Your task to perform on an android device: turn on javascript in the chrome app Image 0: 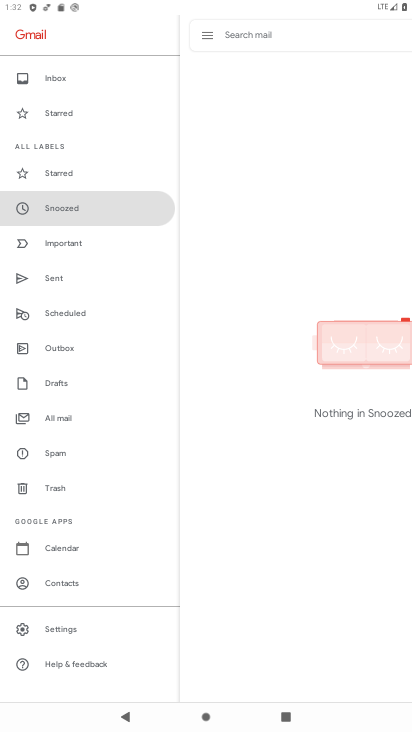
Step 0: press home button
Your task to perform on an android device: turn on javascript in the chrome app Image 1: 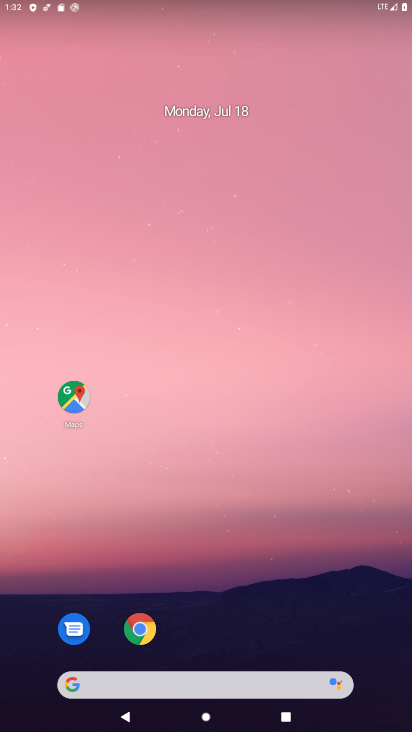
Step 1: click (140, 626)
Your task to perform on an android device: turn on javascript in the chrome app Image 2: 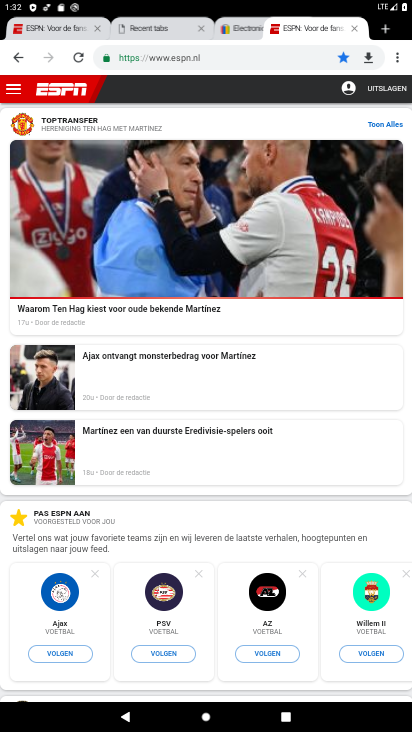
Step 2: click (400, 55)
Your task to perform on an android device: turn on javascript in the chrome app Image 3: 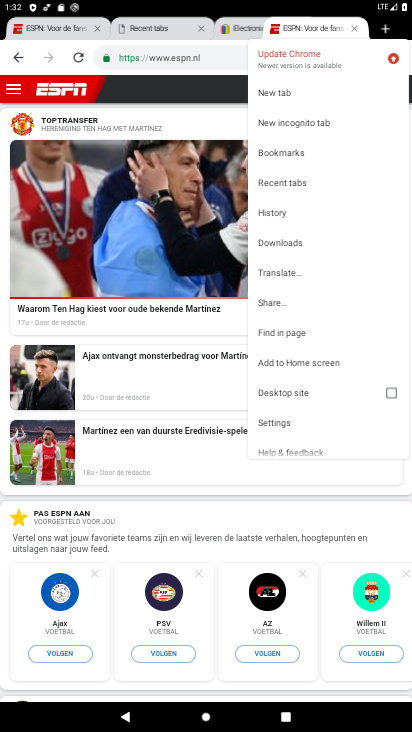
Step 3: click (292, 418)
Your task to perform on an android device: turn on javascript in the chrome app Image 4: 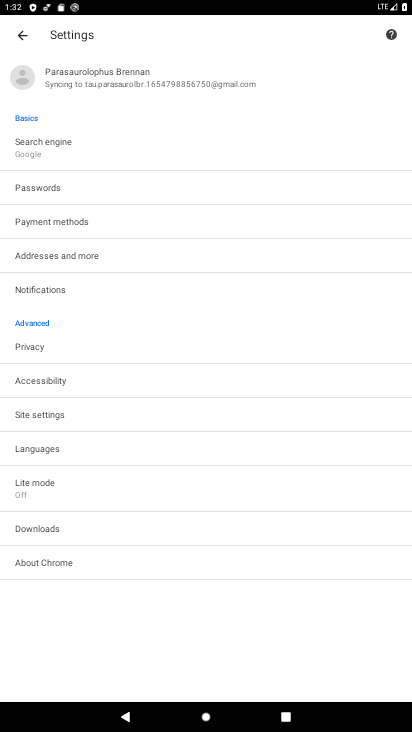
Step 4: click (74, 413)
Your task to perform on an android device: turn on javascript in the chrome app Image 5: 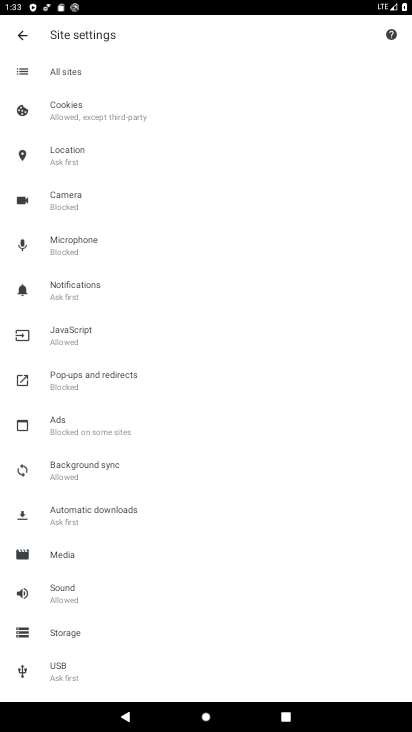
Step 5: click (84, 341)
Your task to perform on an android device: turn on javascript in the chrome app Image 6: 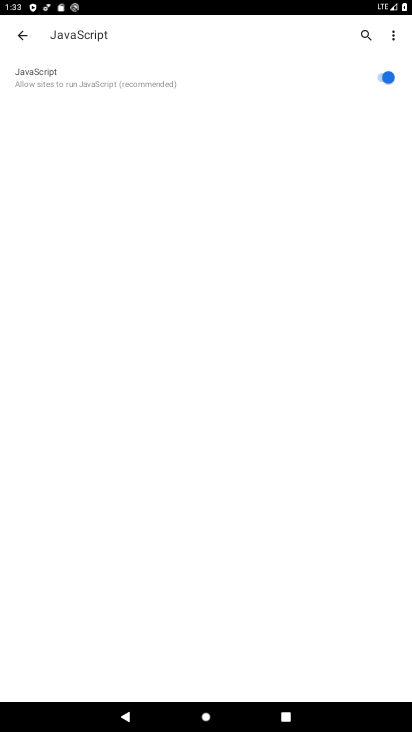
Step 6: task complete